Your task to perform on an android device: turn off notifications settings in the gmail app Image 0: 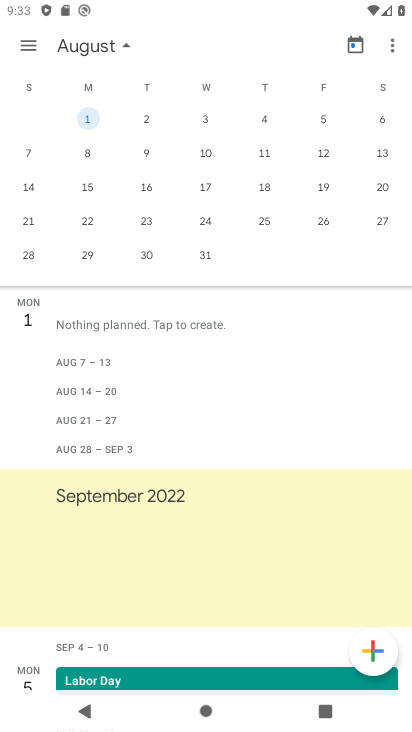
Step 0: press back button
Your task to perform on an android device: turn off notifications settings in the gmail app Image 1: 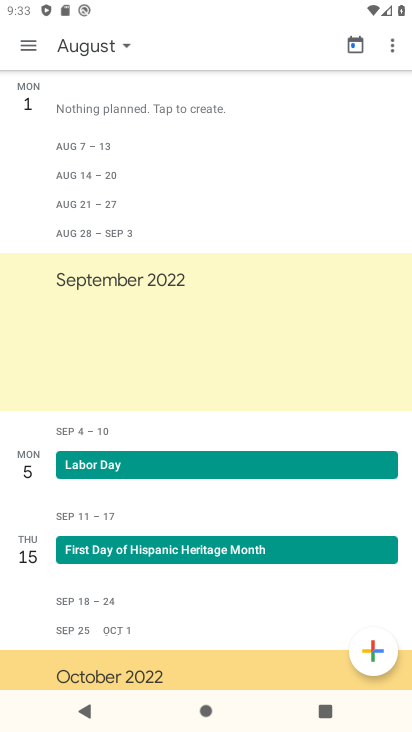
Step 1: press back button
Your task to perform on an android device: turn off notifications settings in the gmail app Image 2: 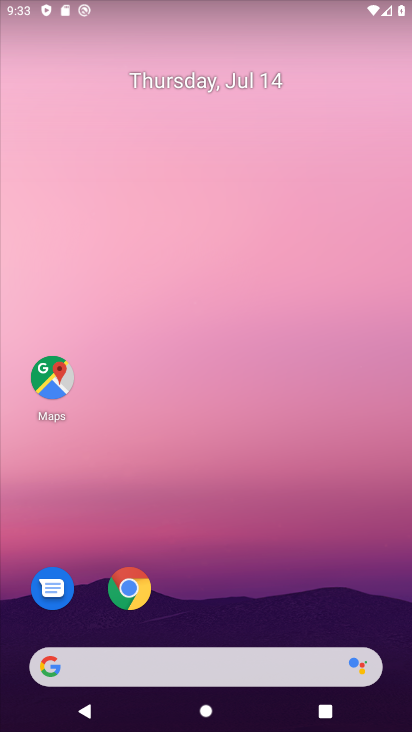
Step 2: drag from (227, 612) to (346, 0)
Your task to perform on an android device: turn off notifications settings in the gmail app Image 3: 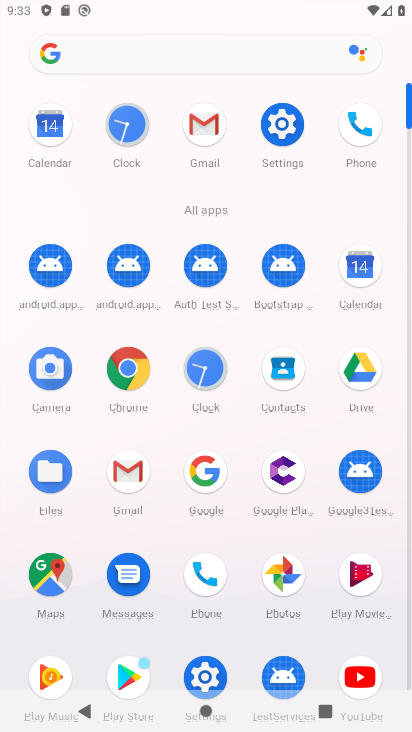
Step 3: click (208, 125)
Your task to perform on an android device: turn off notifications settings in the gmail app Image 4: 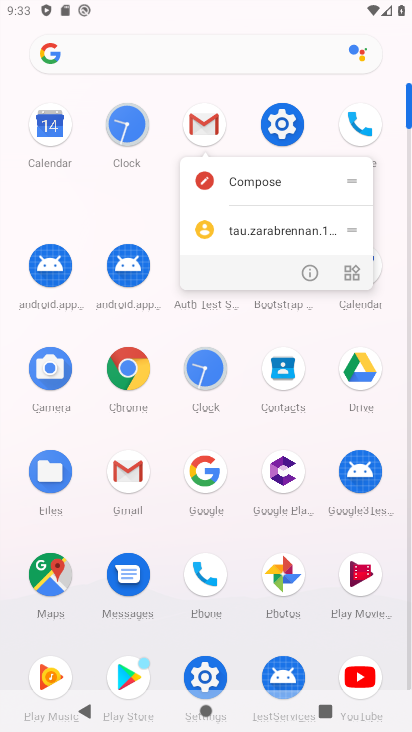
Step 4: click (309, 273)
Your task to perform on an android device: turn off notifications settings in the gmail app Image 5: 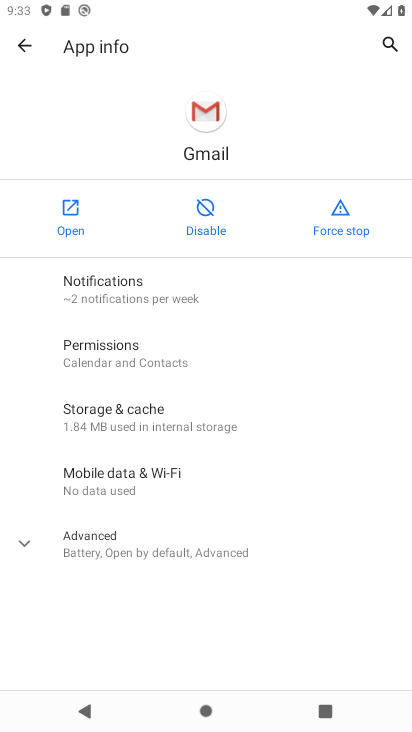
Step 5: click (145, 268)
Your task to perform on an android device: turn off notifications settings in the gmail app Image 6: 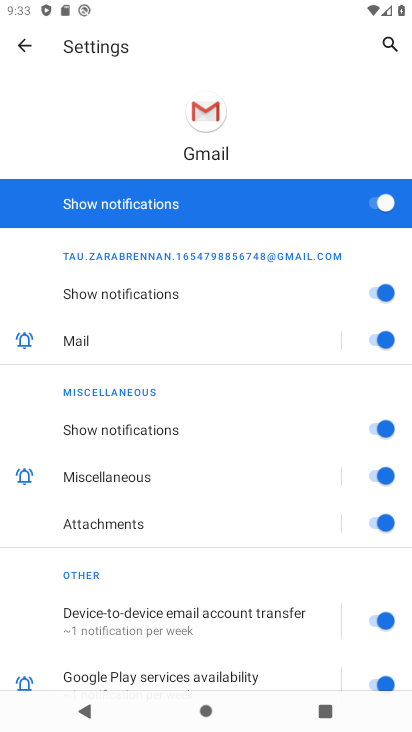
Step 6: click (376, 200)
Your task to perform on an android device: turn off notifications settings in the gmail app Image 7: 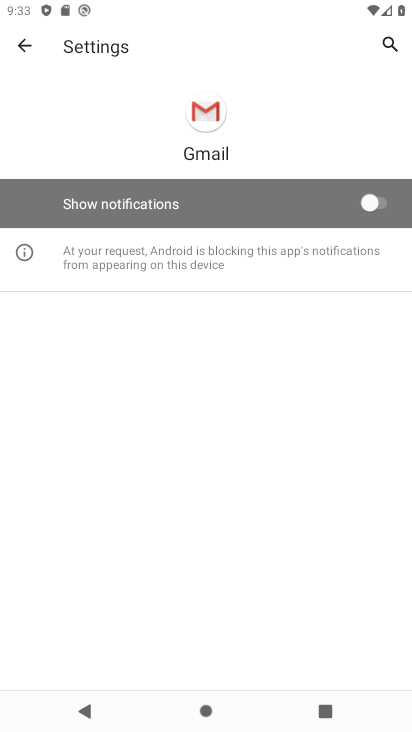
Step 7: task complete